Your task to perform on an android device: Go to sound settings Image 0: 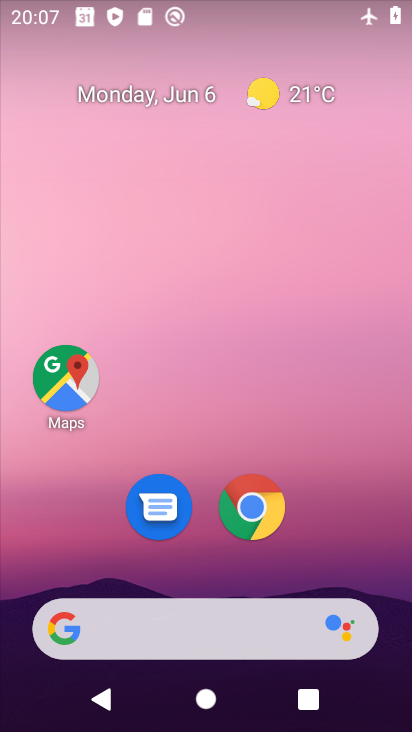
Step 0: drag from (237, 582) to (212, 24)
Your task to perform on an android device: Go to sound settings Image 1: 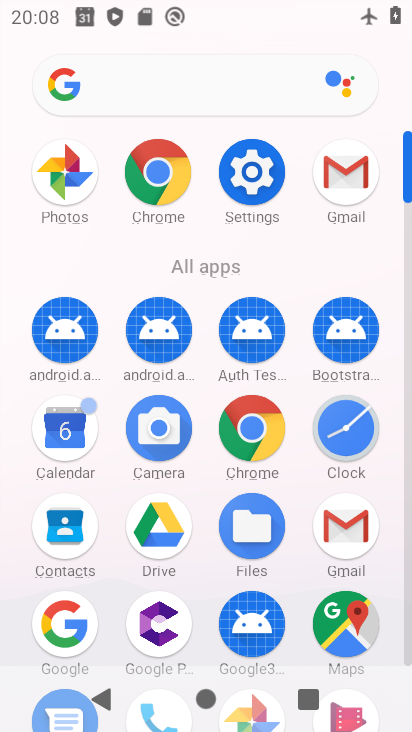
Step 1: click (256, 174)
Your task to perform on an android device: Go to sound settings Image 2: 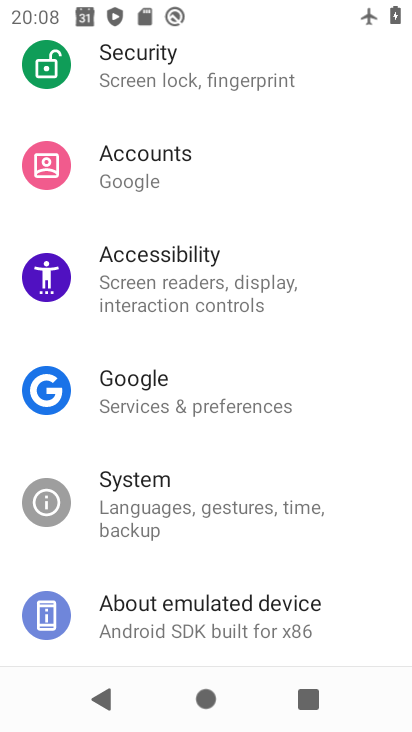
Step 2: drag from (175, 274) to (229, 722)
Your task to perform on an android device: Go to sound settings Image 3: 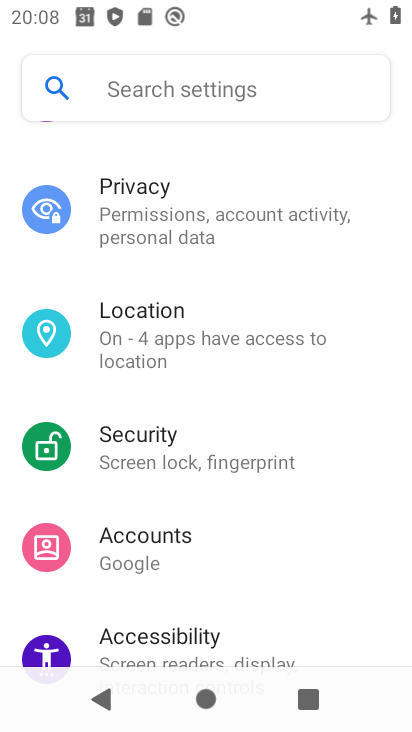
Step 3: drag from (163, 331) to (201, 646)
Your task to perform on an android device: Go to sound settings Image 4: 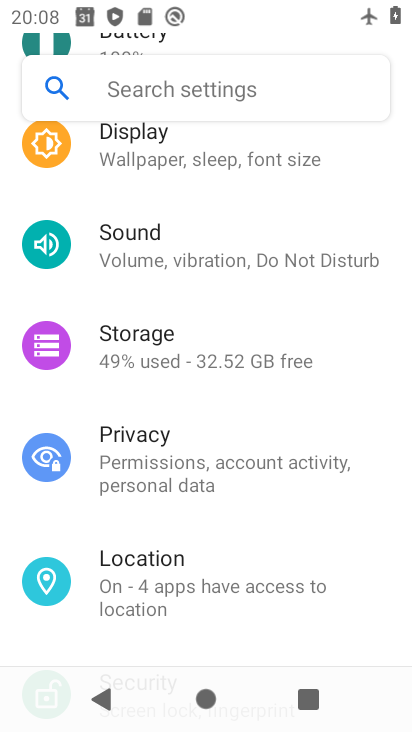
Step 4: click (162, 264)
Your task to perform on an android device: Go to sound settings Image 5: 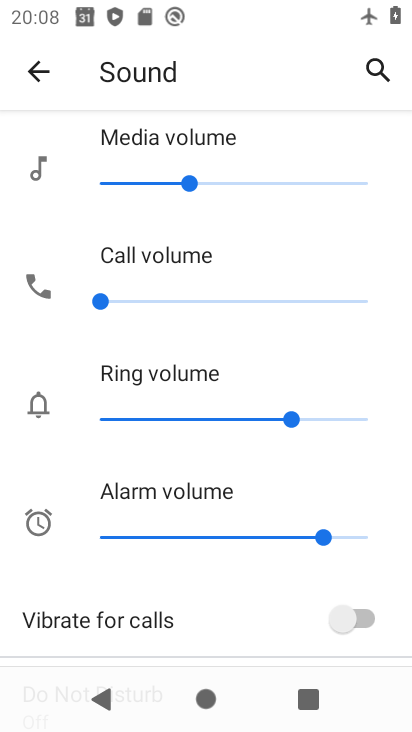
Step 5: task complete